Your task to perform on an android device: stop showing notifications on the lock screen Image 0: 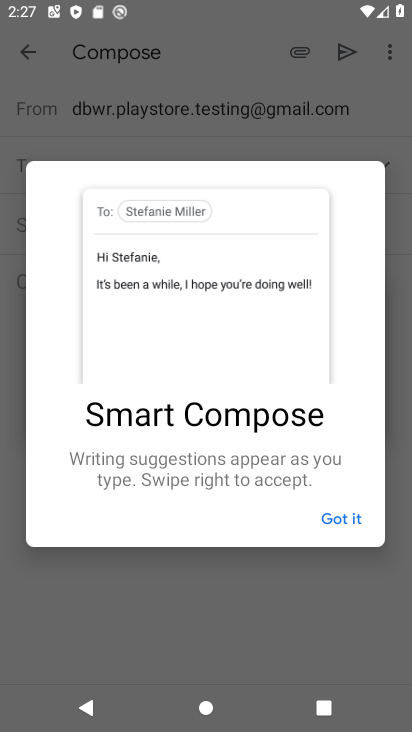
Step 0: press home button
Your task to perform on an android device: stop showing notifications on the lock screen Image 1: 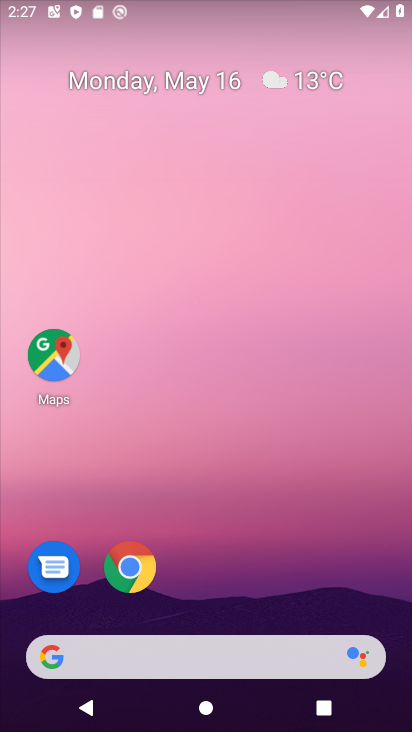
Step 1: drag from (322, 600) to (280, 167)
Your task to perform on an android device: stop showing notifications on the lock screen Image 2: 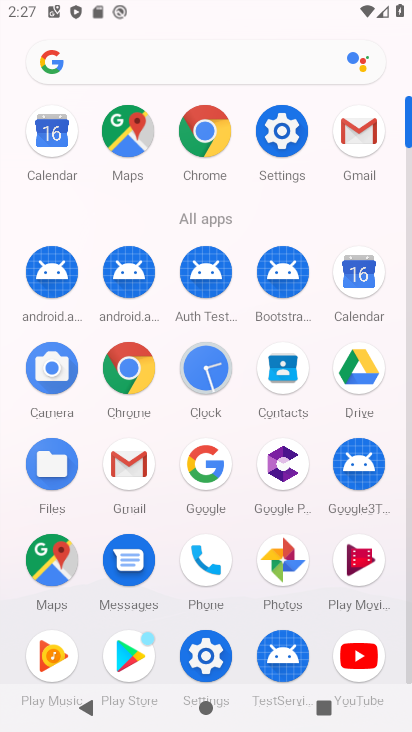
Step 2: click (366, 129)
Your task to perform on an android device: stop showing notifications on the lock screen Image 3: 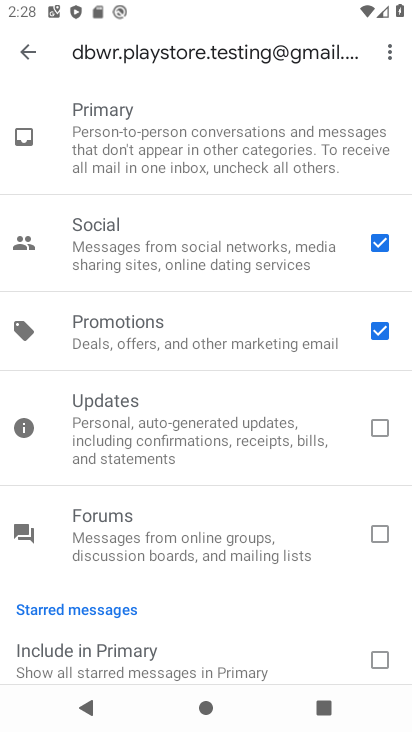
Step 3: click (33, 57)
Your task to perform on an android device: stop showing notifications on the lock screen Image 4: 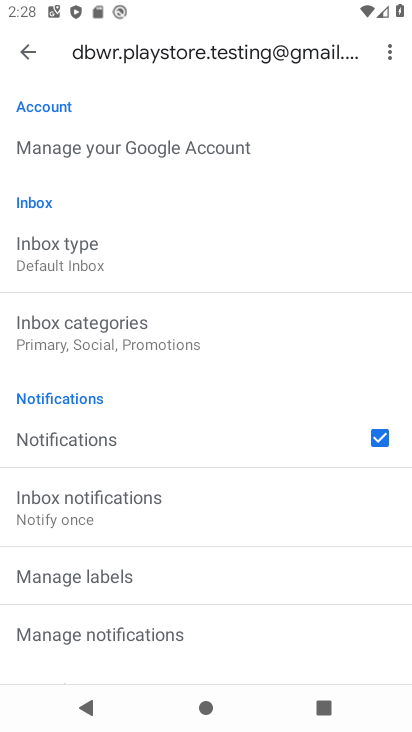
Step 4: drag from (149, 169) to (135, 386)
Your task to perform on an android device: stop showing notifications on the lock screen Image 5: 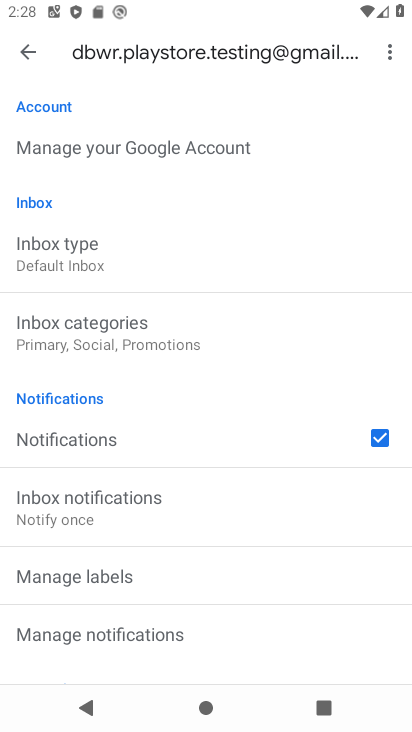
Step 5: click (131, 636)
Your task to perform on an android device: stop showing notifications on the lock screen Image 6: 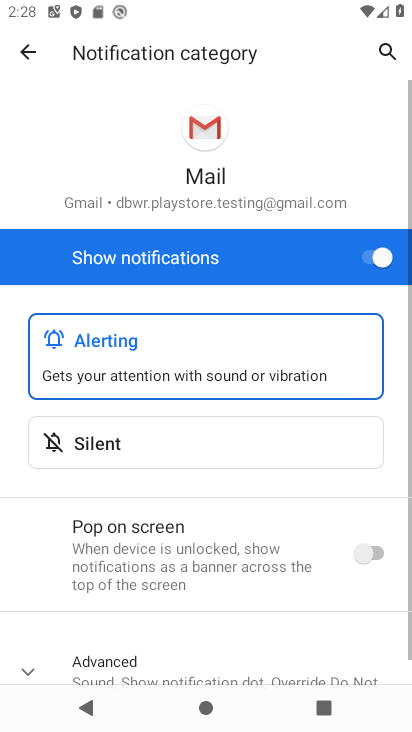
Step 6: drag from (136, 608) to (229, 65)
Your task to perform on an android device: stop showing notifications on the lock screen Image 7: 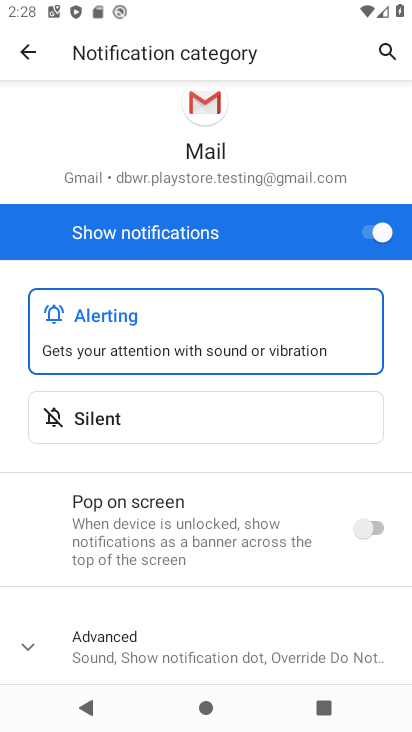
Step 7: click (120, 641)
Your task to perform on an android device: stop showing notifications on the lock screen Image 8: 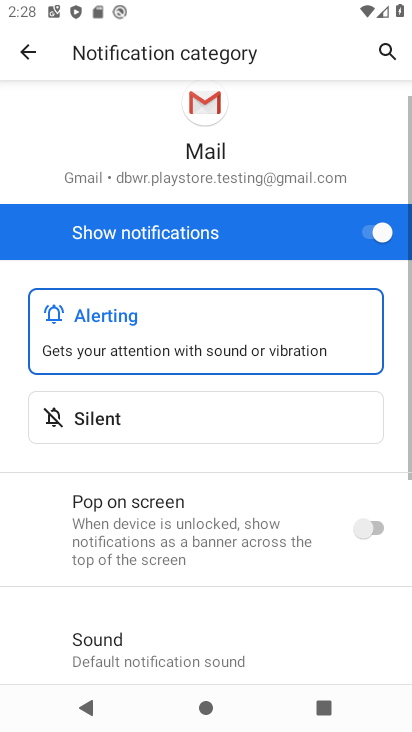
Step 8: click (232, 627)
Your task to perform on an android device: stop showing notifications on the lock screen Image 9: 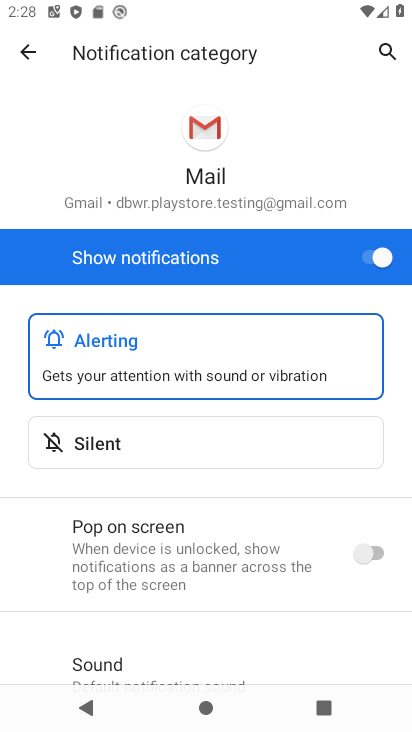
Step 9: click (24, 57)
Your task to perform on an android device: stop showing notifications on the lock screen Image 10: 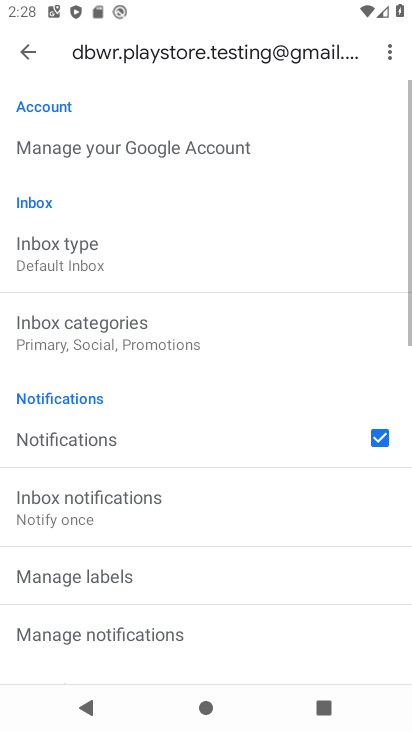
Step 10: click (24, 57)
Your task to perform on an android device: stop showing notifications on the lock screen Image 11: 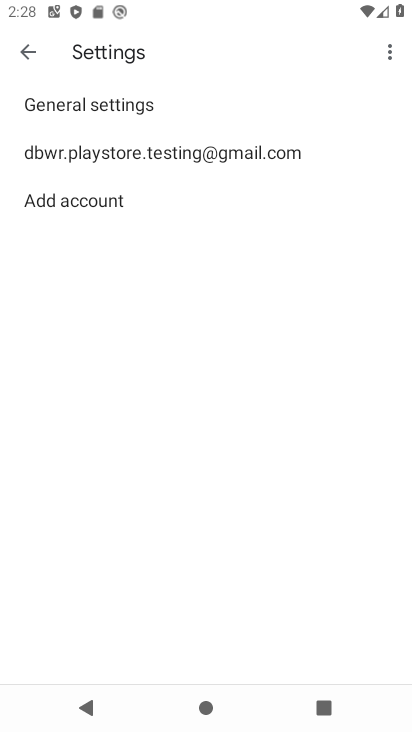
Step 11: click (23, 57)
Your task to perform on an android device: stop showing notifications on the lock screen Image 12: 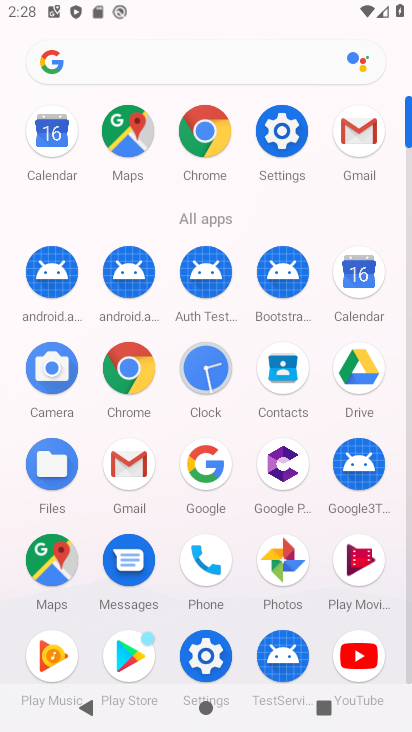
Step 12: click (212, 645)
Your task to perform on an android device: stop showing notifications on the lock screen Image 13: 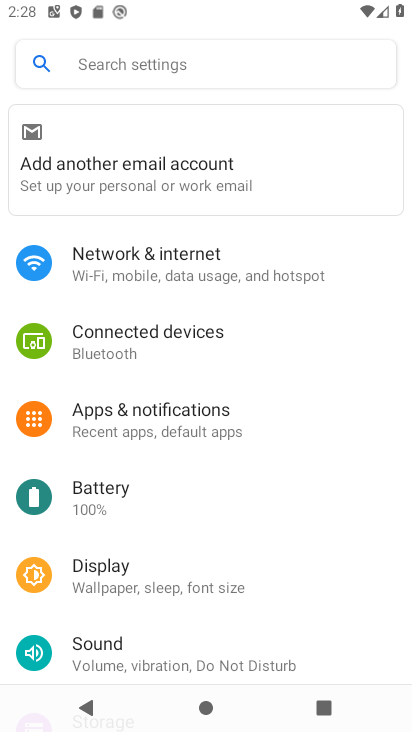
Step 13: click (179, 416)
Your task to perform on an android device: stop showing notifications on the lock screen Image 14: 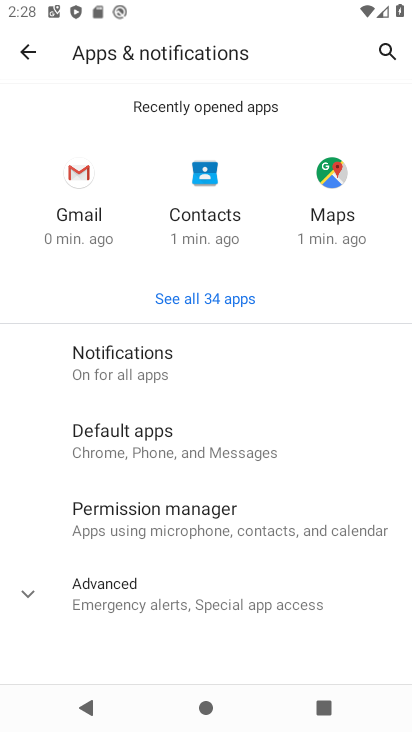
Step 14: click (176, 369)
Your task to perform on an android device: stop showing notifications on the lock screen Image 15: 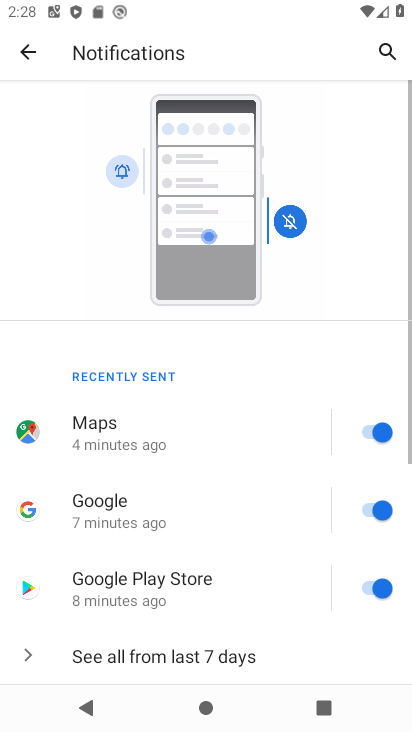
Step 15: drag from (211, 648) to (295, 63)
Your task to perform on an android device: stop showing notifications on the lock screen Image 16: 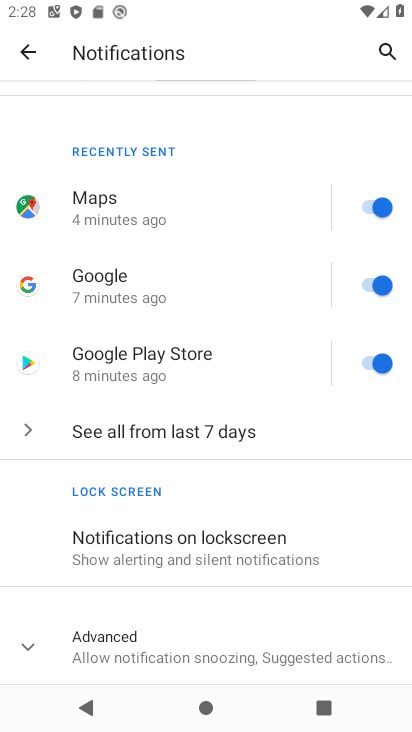
Step 16: click (217, 552)
Your task to perform on an android device: stop showing notifications on the lock screen Image 17: 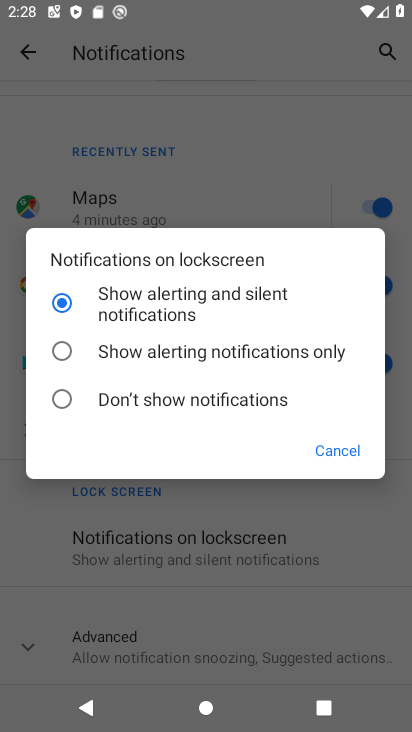
Step 17: click (214, 392)
Your task to perform on an android device: stop showing notifications on the lock screen Image 18: 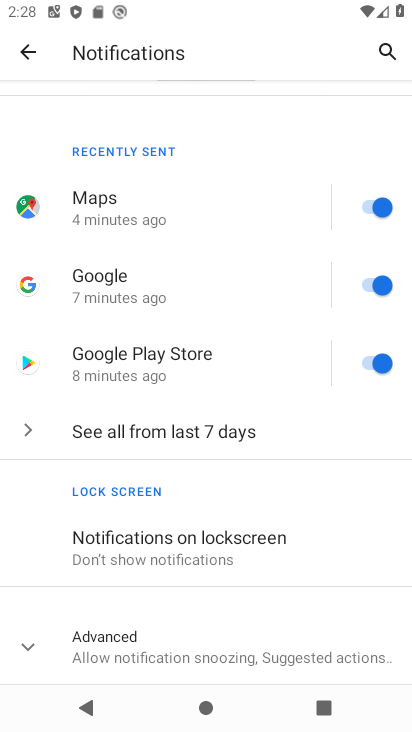
Step 18: task complete